Your task to perform on an android device: choose inbox layout in the gmail app Image 0: 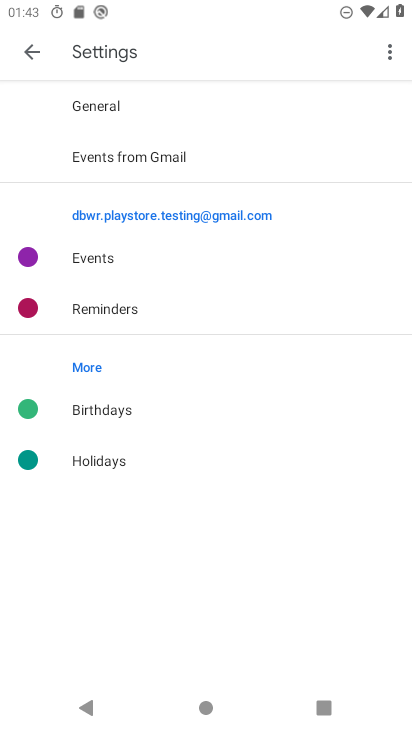
Step 0: press home button
Your task to perform on an android device: choose inbox layout in the gmail app Image 1: 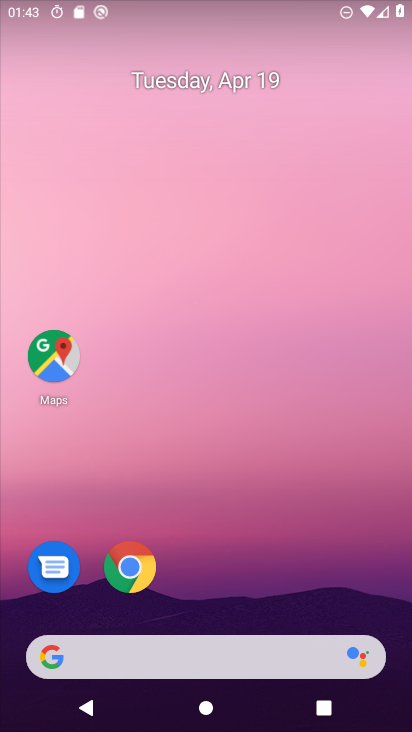
Step 1: drag from (285, 464) to (200, 113)
Your task to perform on an android device: choose inbox layout in the gmail app Image 2: 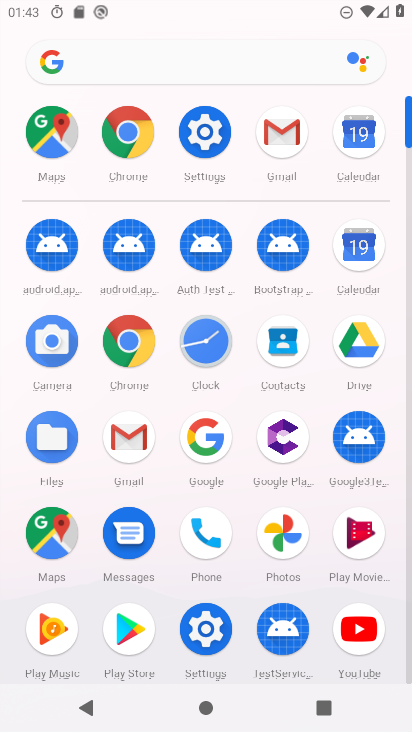
Step 2: click (138, 440)
Your task to perform on an android device: choose inbox layout in the gmail app Image 3: 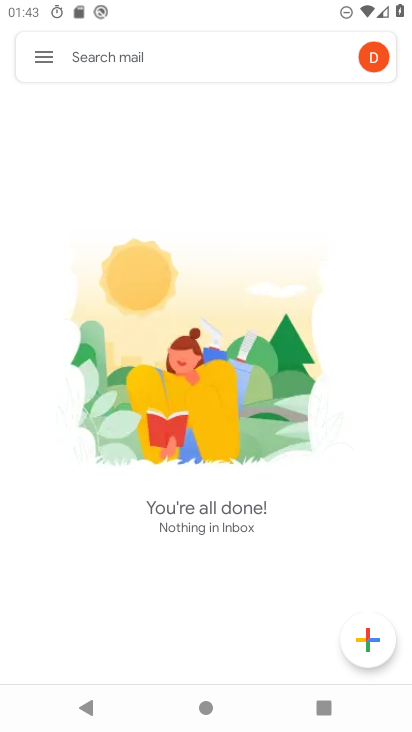
Step 3: click (41, 54)
Your task to perform on an android device: choose inbox layout in the gmail app Image 4: 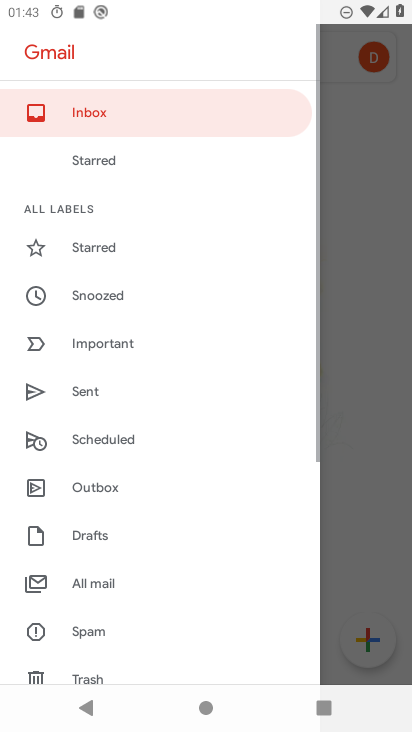
Step 4: drag from (188, 452) to (198, 148)
Your task to perform on an android device: choose inbox layout in the gmail app Image 5: 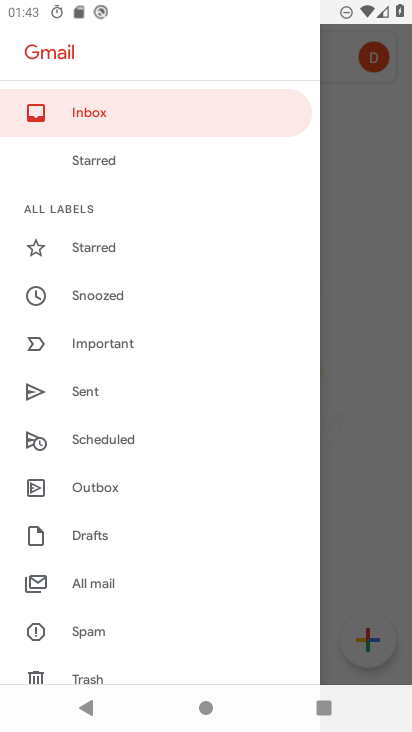
Step 5: drag from (170, 603) to (220, 152)
Your task to perform on an android device: choose inbox layout in the gmail app Image 6: 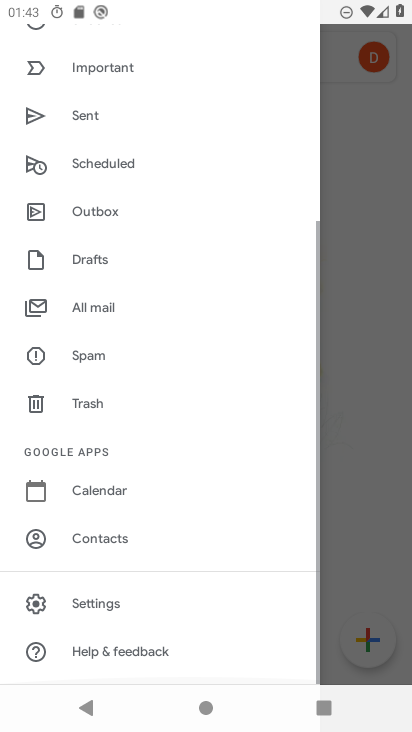
Step 6: click (95, 602)
Your task to perform on an android device: choose inbox layout in the gmail app Image 7: 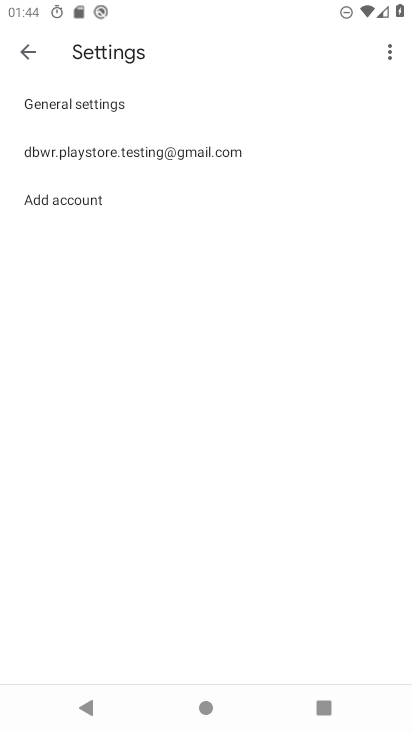
Step 7: click (126, 149)
Your task to perform on an android device: choose inbox layout in the gmail app Image 8: 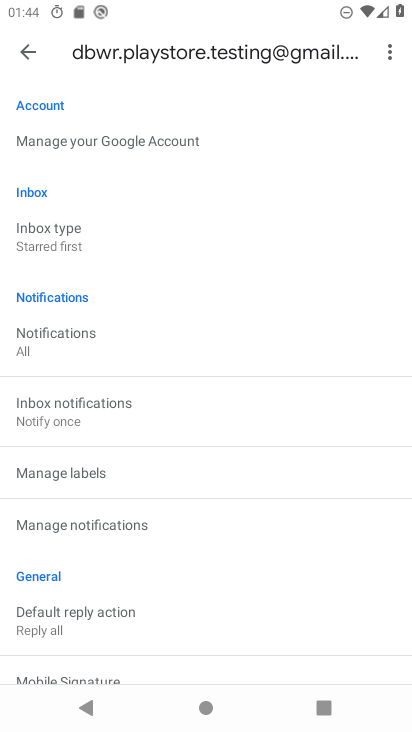
Step 8: click (75, 246)
Your task to perform on an android device: choose inbox layout in the gmail app Image 9: 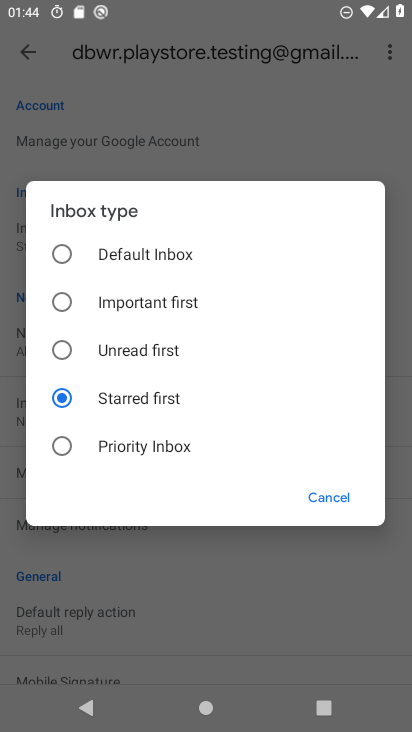
Step 9: task complete